Your task to perform on an android device: Search for a custom made wallet Image 0: 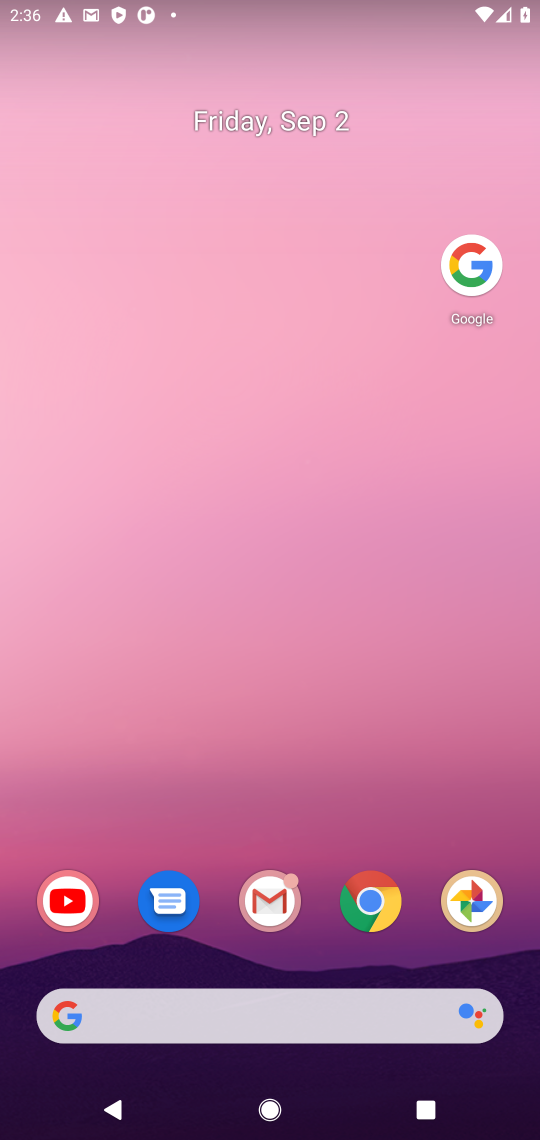
Step 0: drag from (236, 948) to (246, 455)
Your task to perform on an android device: Search for a custom made wallet Image 1: 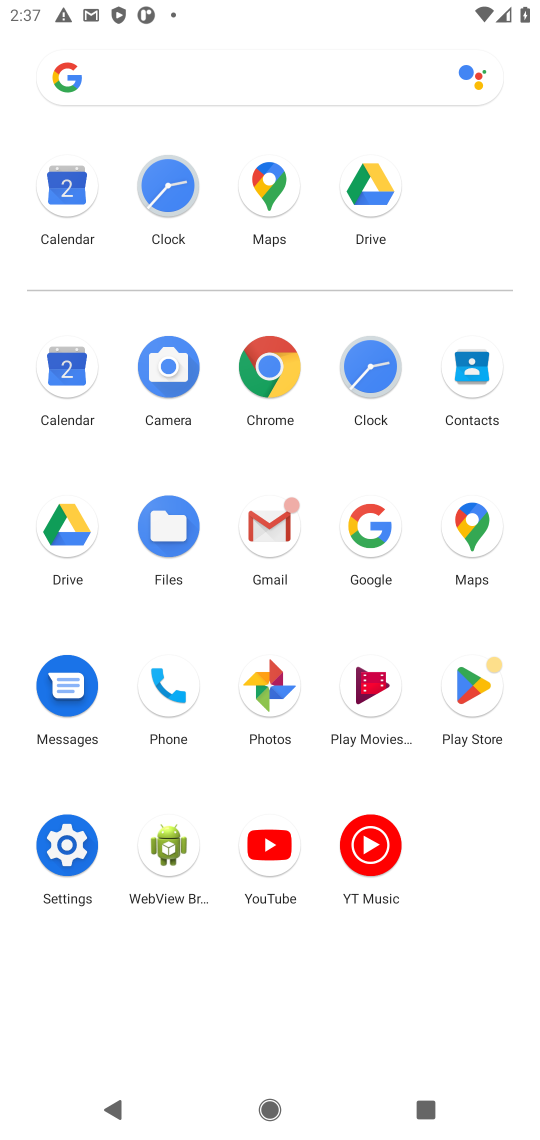
Step 1: click (356, 525)
Your task to perform on an android device: Search for a custom made wallet Image 2: 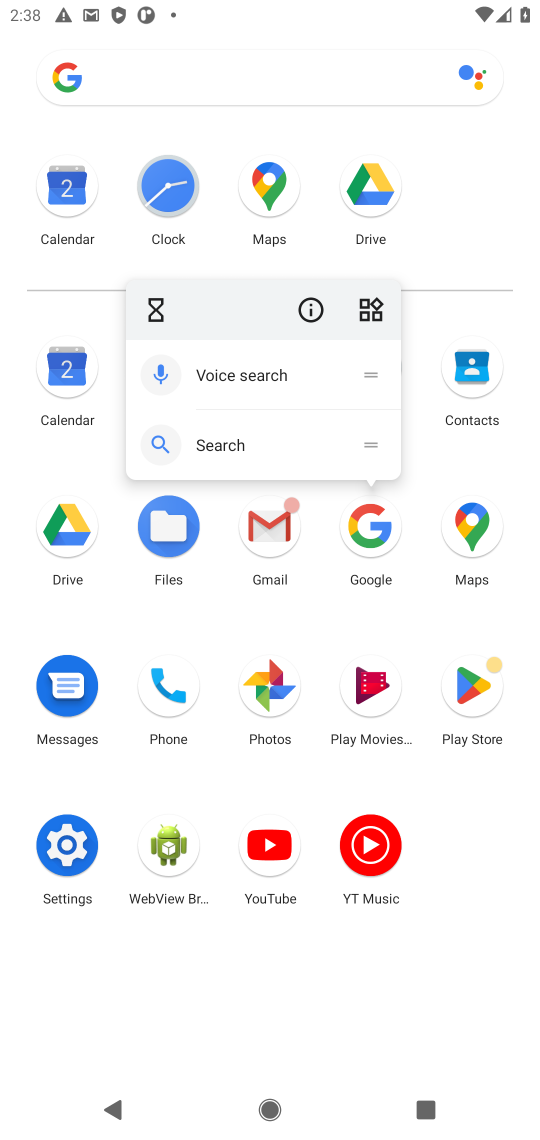
Step 2: click (375, 541)
Your task to perform on an android device: Search for a custom made wallet Image 3: 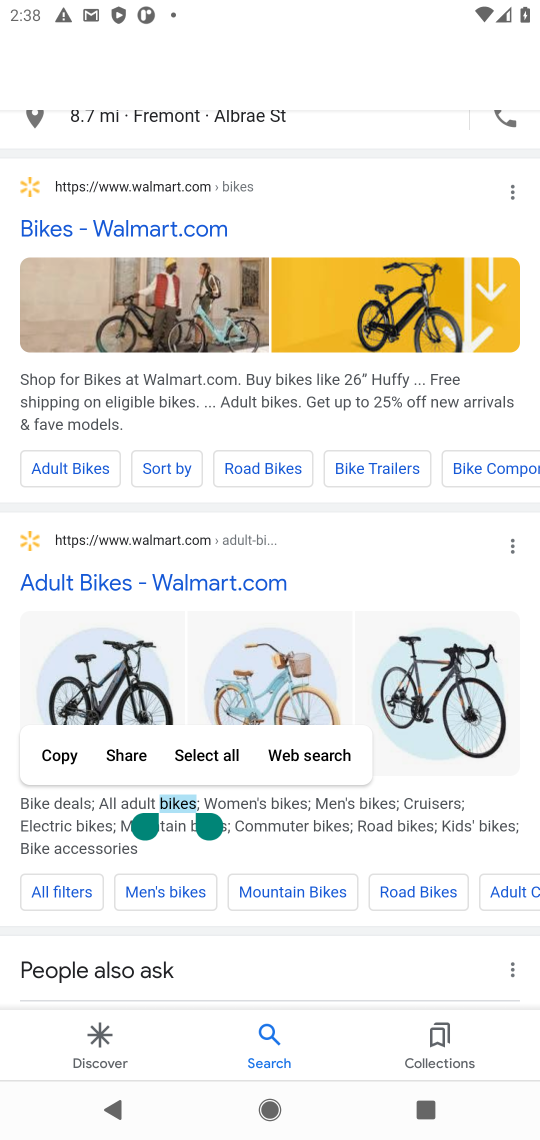
Step 3: drag from (242, 238) to (254, 1077)
Your task to perform on an android device: Search for a custom made wallet Image 4: 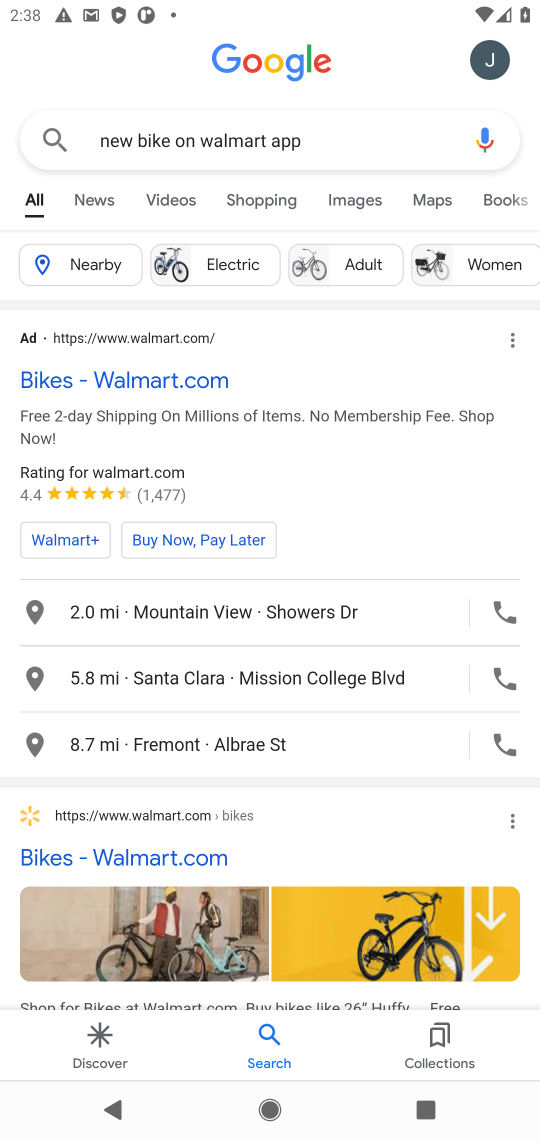
Step 4: click (329, 126)
Your task to perform on an android device: Search for a custom made wallet Image 5: 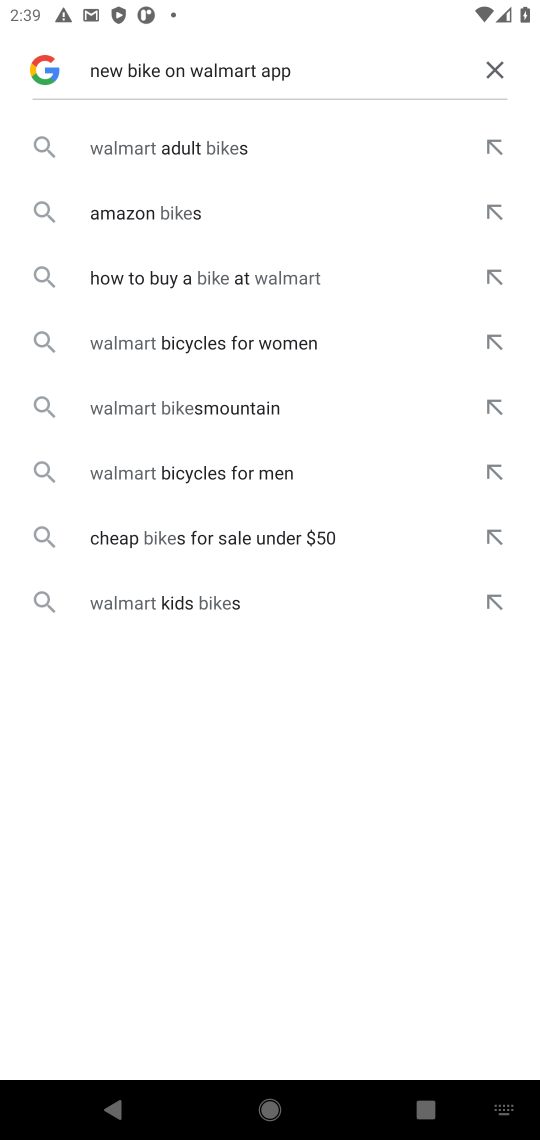
Step 5: click (179, 142)
Your task to perform on an android device: Search for a custom made wallet Image 6: 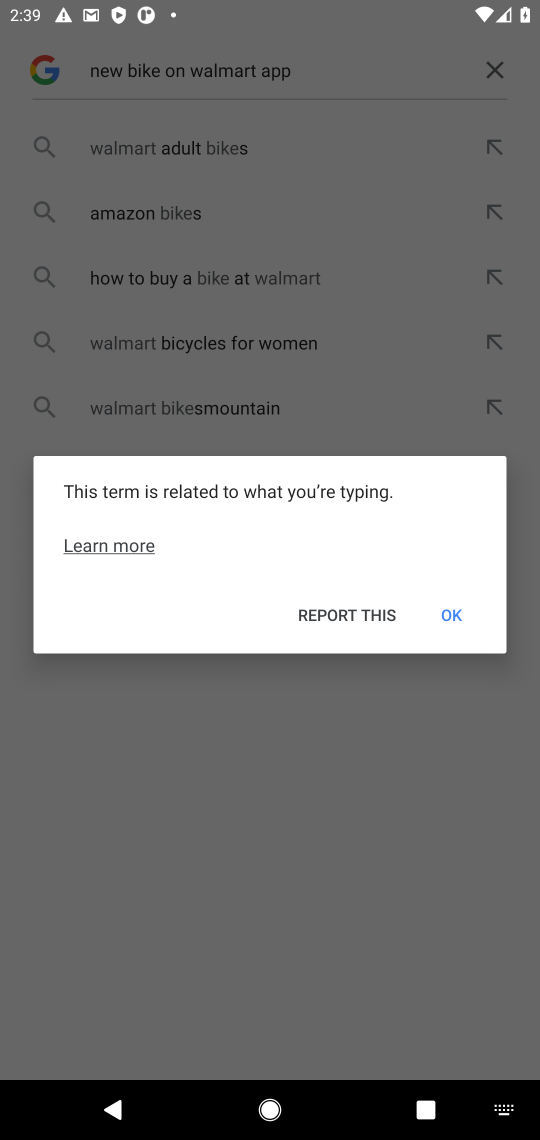
Step 6: click (430, 613)
Your task to perform on an android device: Search for a custom made wallet Image 7: 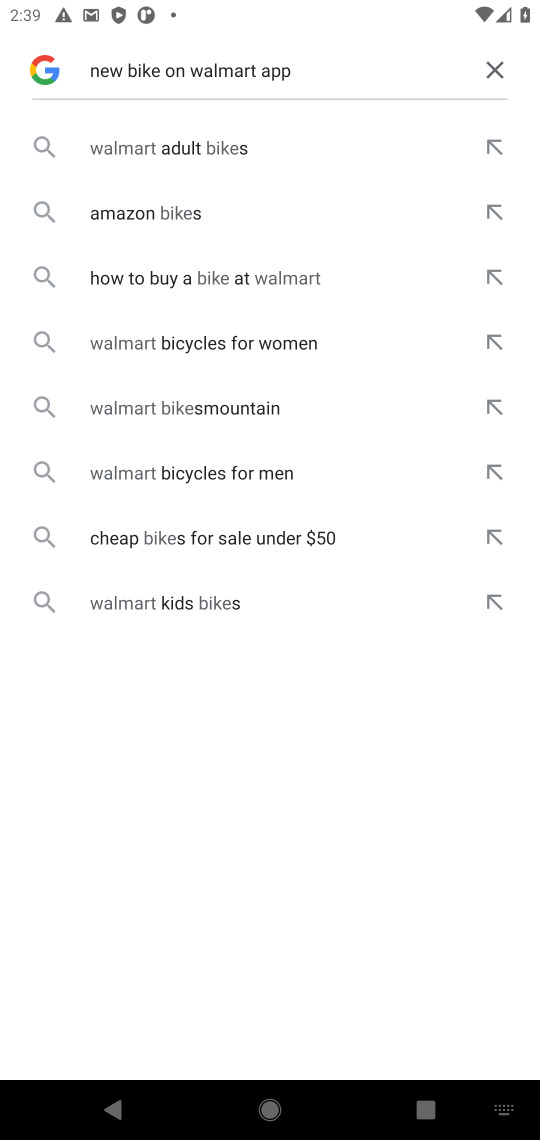
Step 7: click (152, 206)
Your task to perform on an android device: Search for a custom made wallet Image 8: 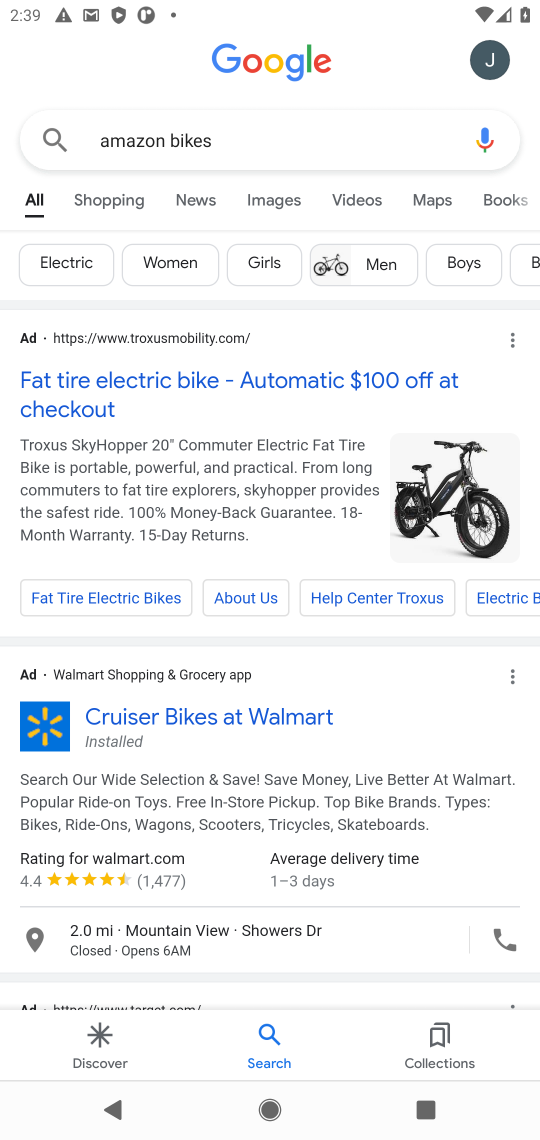
Step 8: click (198, 715)
Your task to perform on an android device: Search for a custom made wallet Image 9: 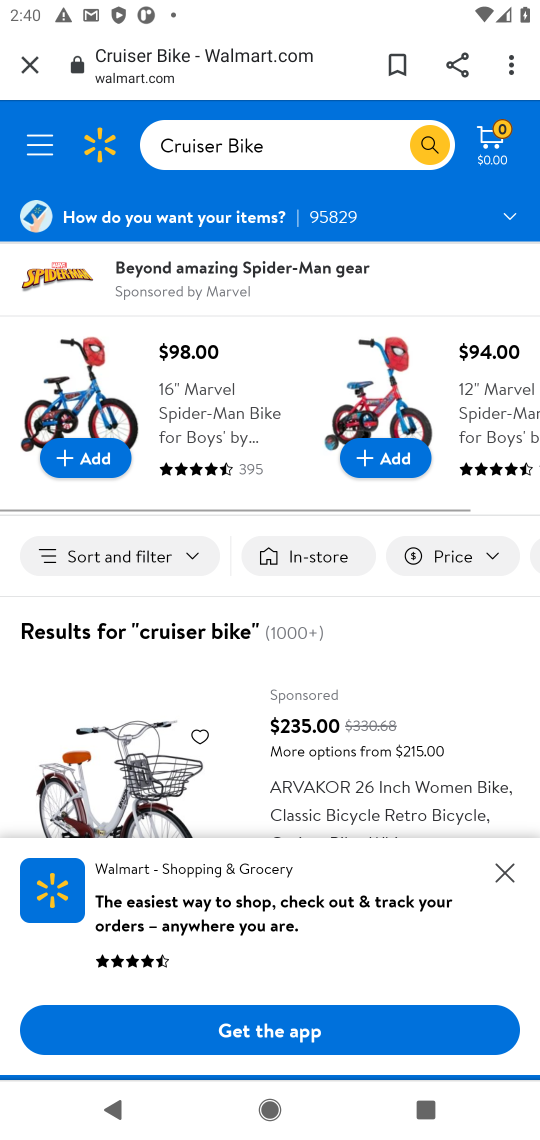
Step 9: click (24, 64)
Your task to perform on an android device: Search for a custom made wallet Image 10: 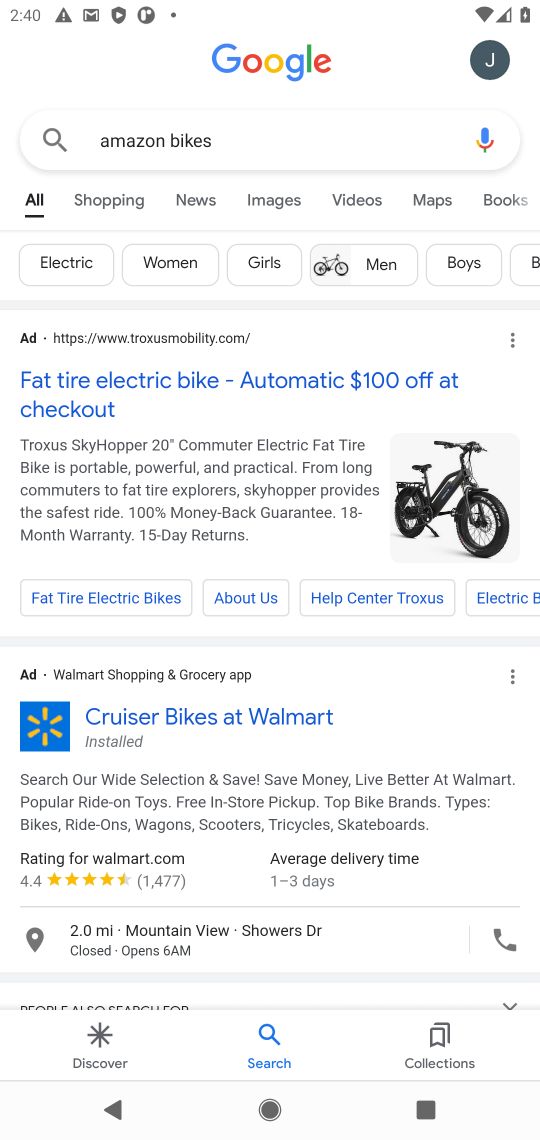
Step 10: click (272, 132)
Your task to perform on an android device: Search for a custom made wallet Image 11: 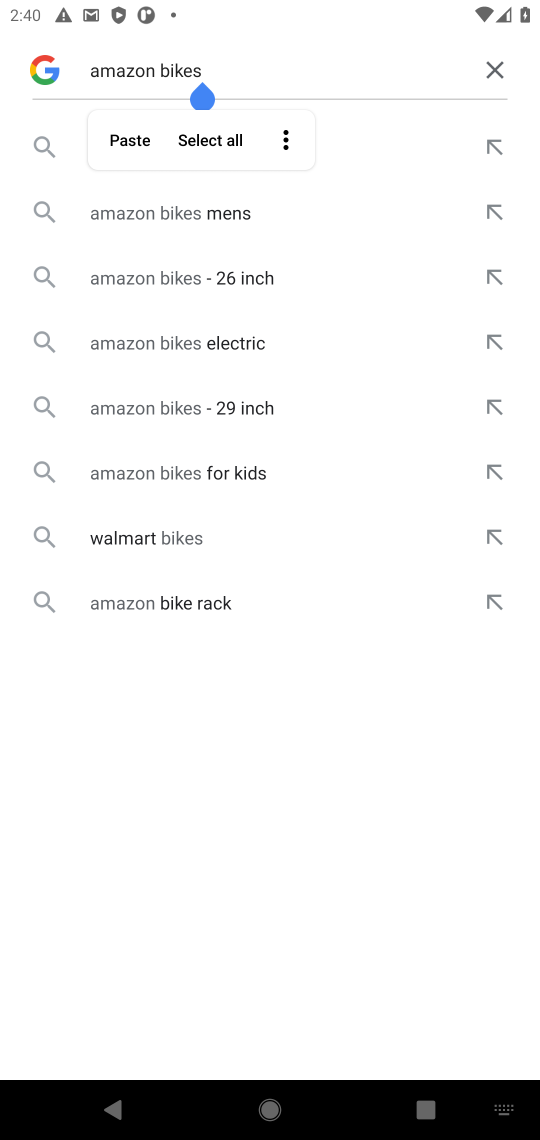
Step 11: click (489, 67)
Your task to perform on an android device: Search for a custom made wallet Image 12: 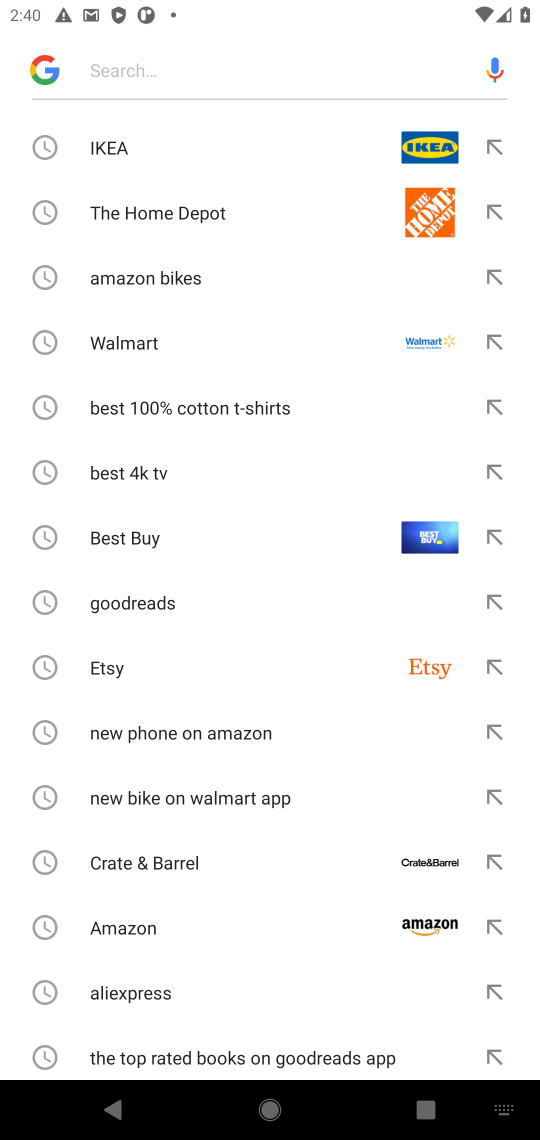
Step 12: click (165, 66)
Your task to perform on an android device: Search for a custom made wallet Image 13: 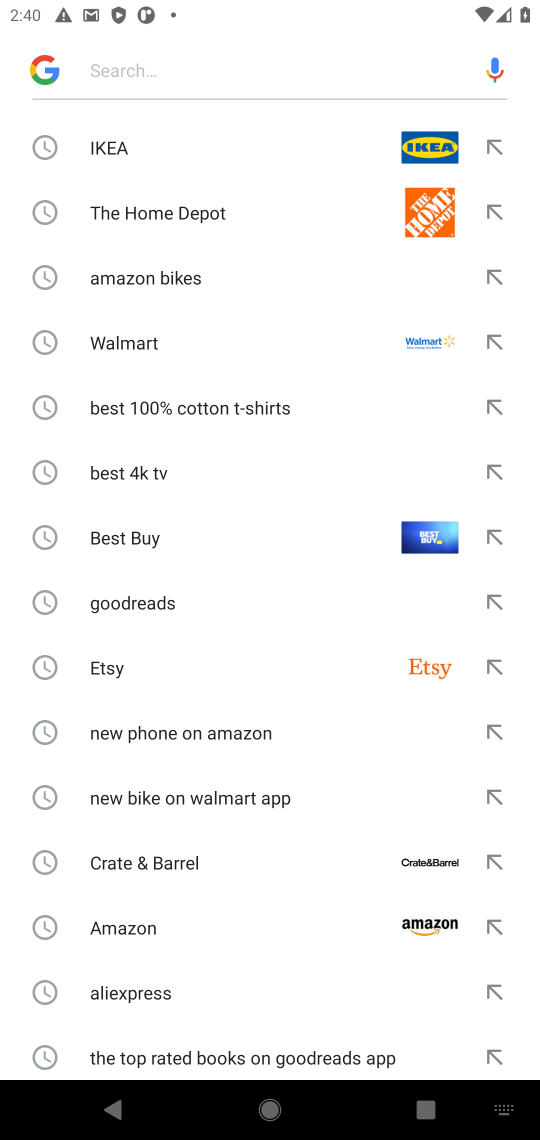
Step 13: type " a custom made wallet "
Your task to perform on an android device: Search for a custom made wallet Image 14: 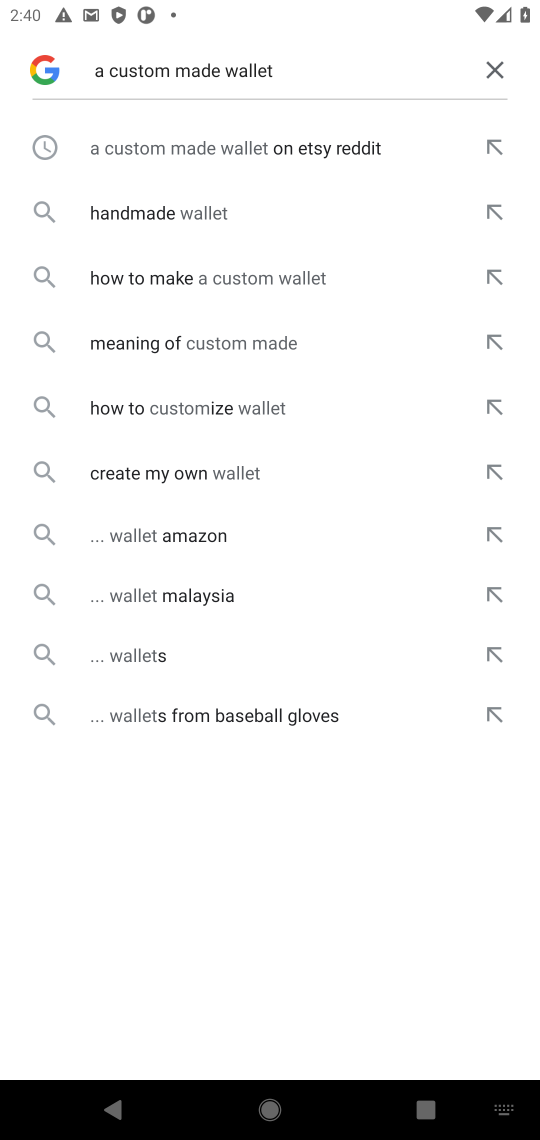
Step 14: click (274, 153)
Your task to perform on an android device: Search for a custom made wallet Image 15: 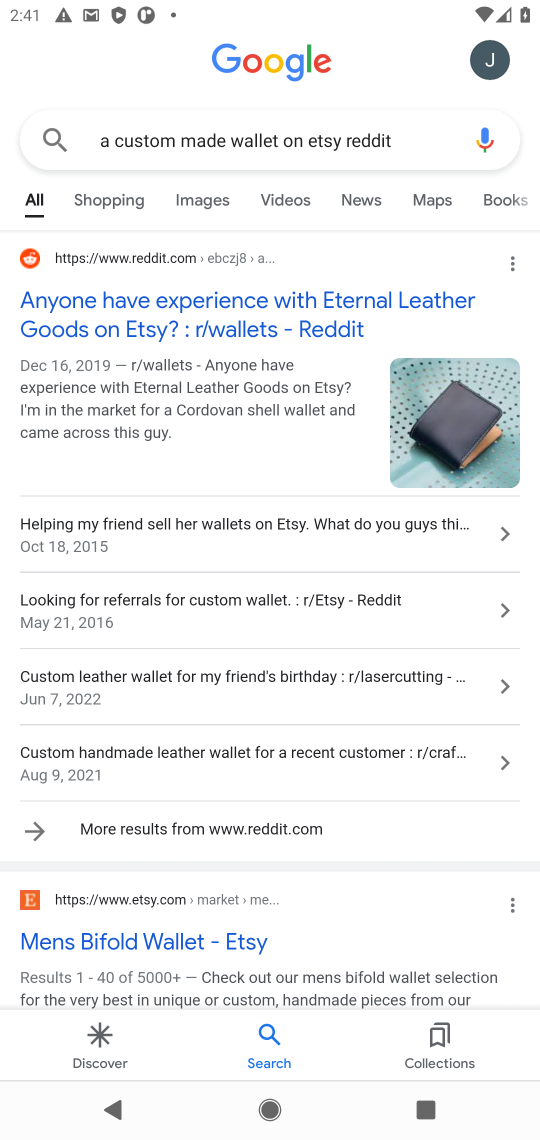
Step 15: task complete